Your task to perform on an android device: open app "LinkedIn" (install if not already installed), go to login, and select forgot password Image 0: 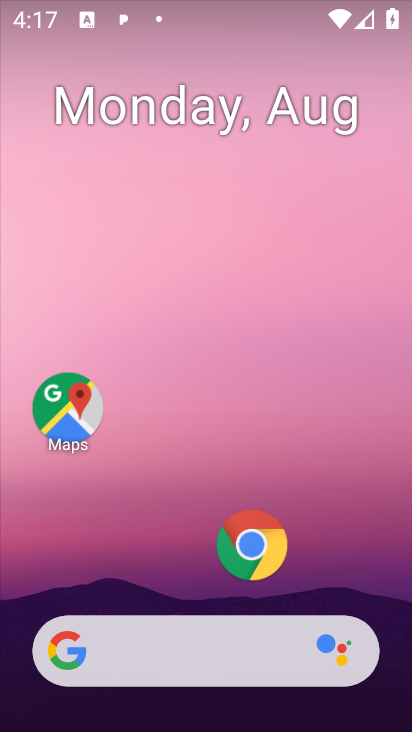
Step 0: drag from (156, 533) to (295, 18)
Your task to perform on an android device: open app "LinkedIn" (install if not already installed), go to login, and select forgot password Image 1: 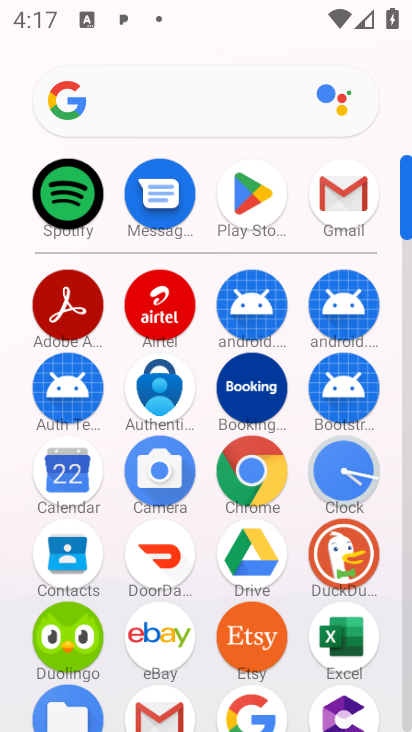
Step 1: click (271, 187)
Your task to perform on an android device: open app "LinkedIn" (install if not already installed), go to login, and select forgot password Image 2: 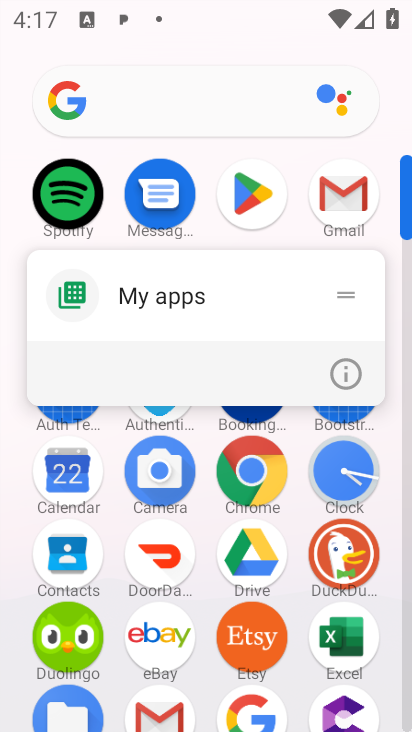
Step 2: click (253, 188)
Your task to perform on an android device: open app "LinkedIn" (install if not already installed), go to login, and select forgot password Image 3: 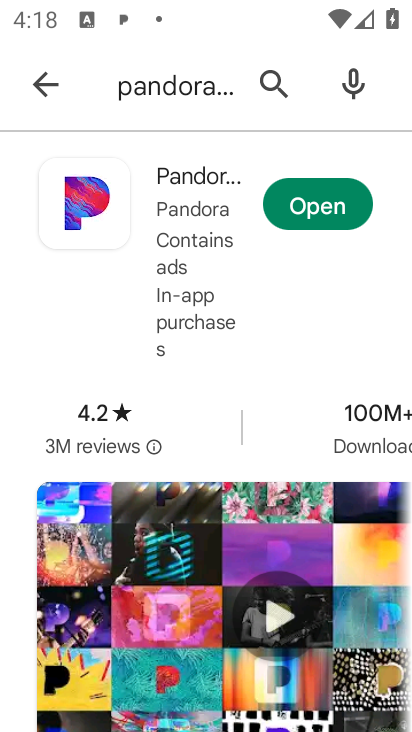
Step 3: click (258, 77)
Your task to perform on an android device: open app "LinkedIn" (install if not already installed), go to login, and select forgot password Image 4: 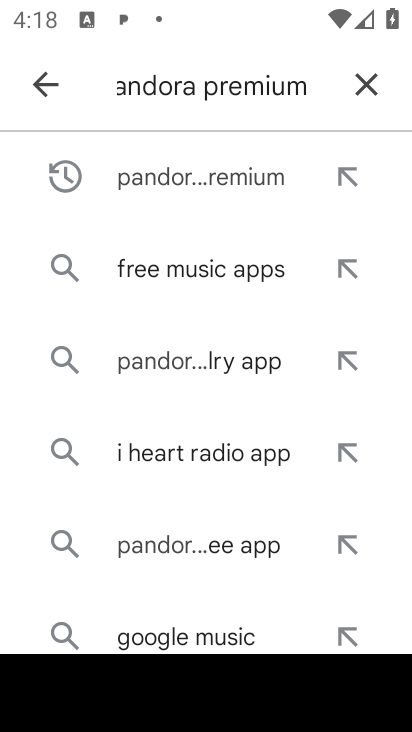
Step 4: click (353, 72)
Your task to perform on an android device: open app "LinkedIn" (install if not already installed), go to login, and select forgot password Image 5: 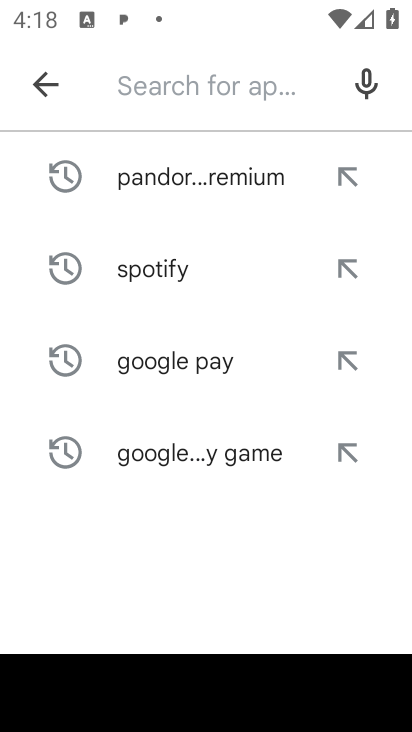
Step 5: click (174, 89)
Your task to perform on an android device: open app "LinkedIn" (install if not already installed), go to login, and select forgot password Image 6: 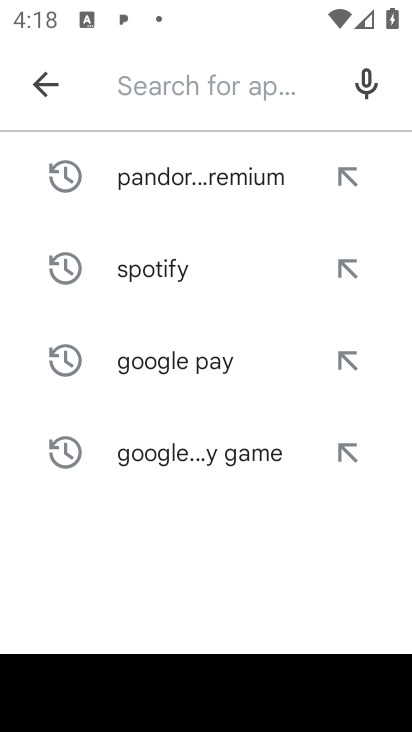
Step 6: type "LinkedIn"
Your task to perform on an android device: open app "LinkedIn" (install if not already installed), go to login, and select forgot password Image 7: 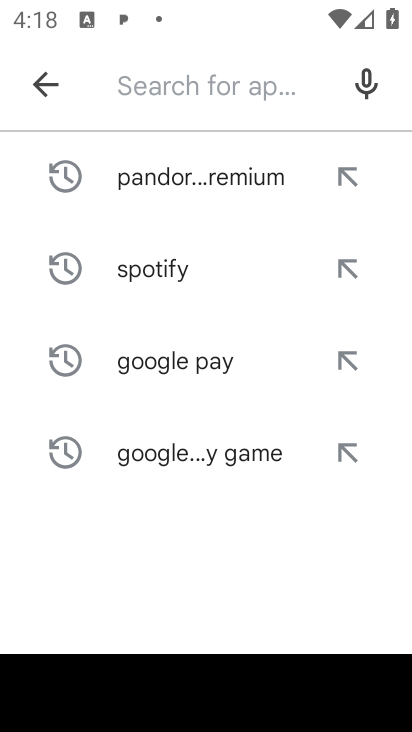
Step 7: click (186, 570)
Your task to perform on an android device: open app "LinkedIn" (install if not already installed), go to login, and select forgot password Image 8: 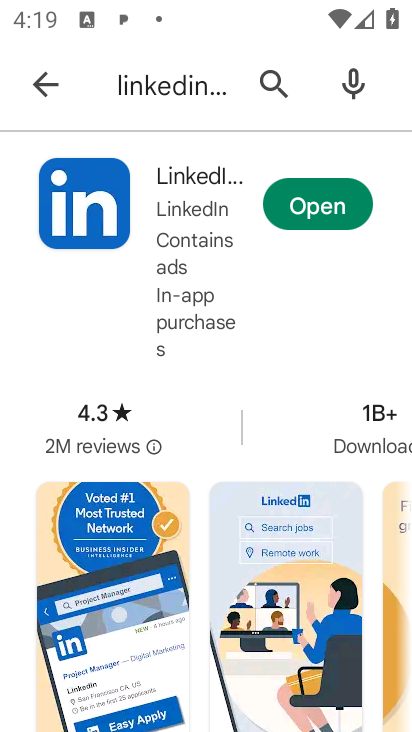
Step 8: click (323, 213)
Your task to perform on an android device: open app "LinkedIn" (install if not already installed), go to login, and select forgot password Image 9: 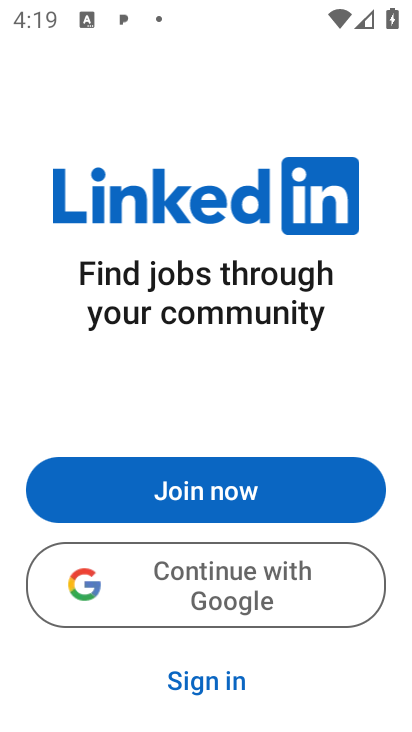
Step 9: task complete